Your task to perform on an android device: Search for razer kraken on target.com, select the first entry, and add it to the cart. Image 0: 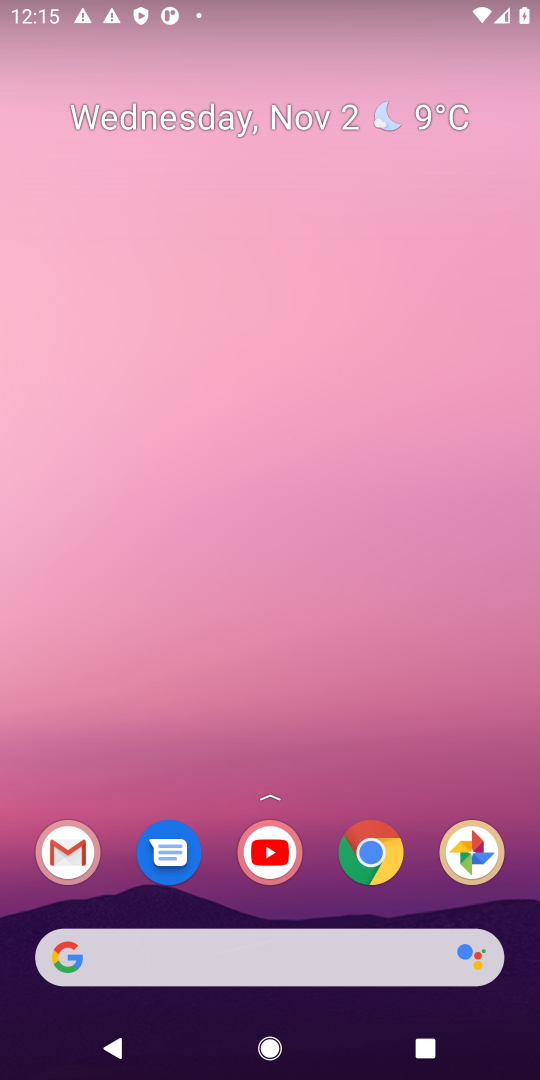
Step 0: drag from (269, 670) to (291, 21)
Your task to perform on an android device: Search for razer kraken on target.com, select the first entry, and add it to the cart. Image 1: 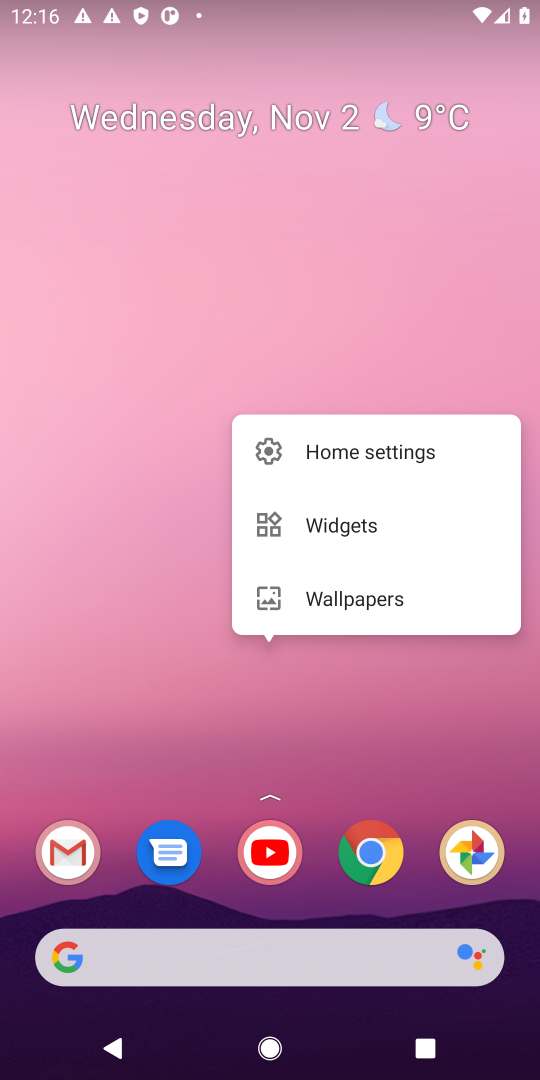
Step 1: click (199, 346)
Your task to perform on an android device: Search for razer kraken on target.com, select the first entry, and add it to the cart. Image 2: 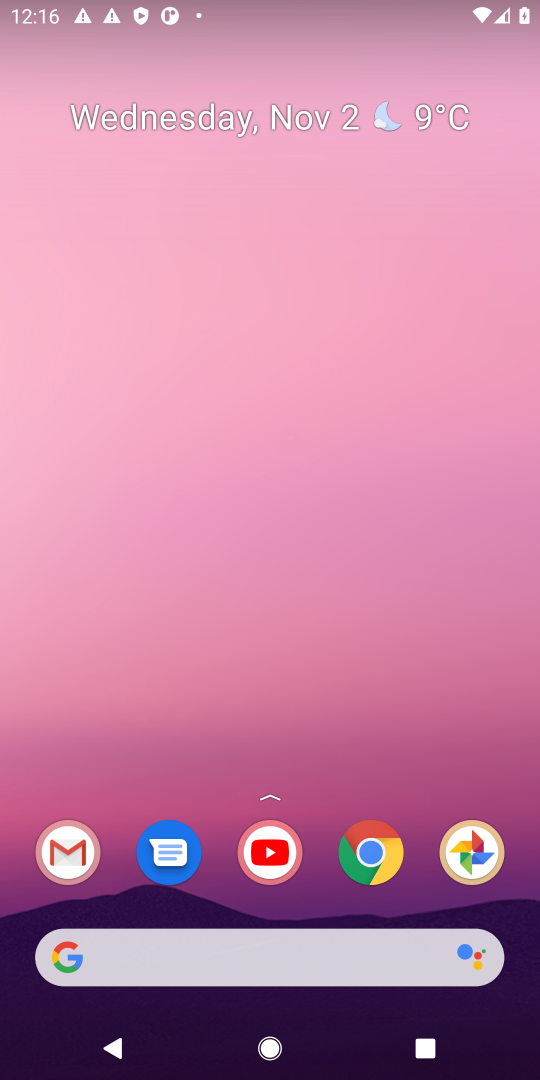
Step 2: click (199, 346)
Your task to perform on an android device: Search for razer kraken on target.com, select the first entry, and add it to the cart. Image 3: 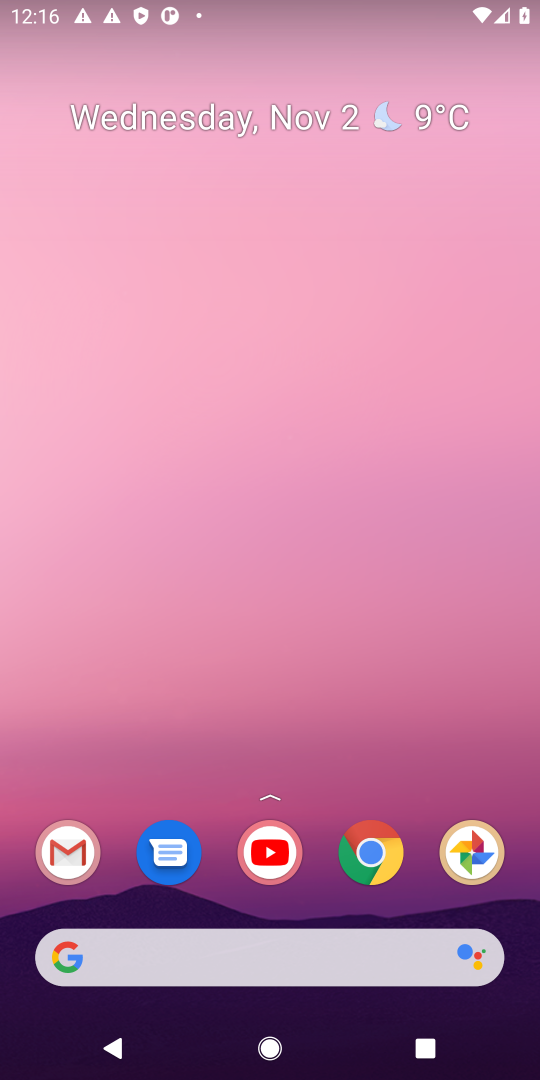
Step 3: drag from (314, 827) to (287, 72)
Your task to perform on an android device: Search for razer kraken on target.com, select the first entry, and add it to the cart. Image 4: 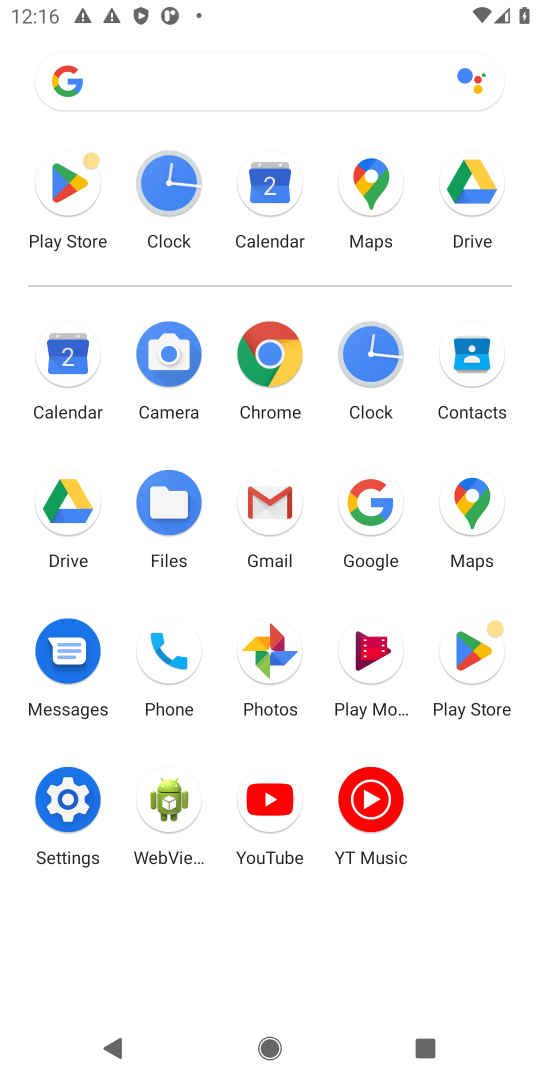
Step 4: click (383, 530)
Your task to perform on an android device: Search for razer kraken on target.com, select the first entry, and add it to the cart. Image 5: 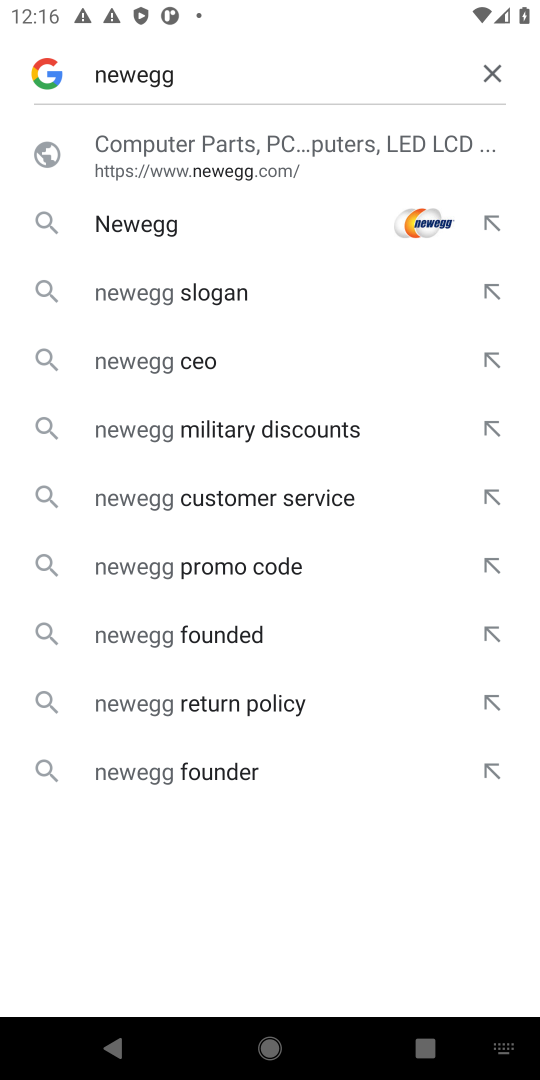
Step 5: click (492, 77)
Your task to perform on an android device: Search for razer kraken on target.com, select the first entry, and add it to the cart. Image 6: 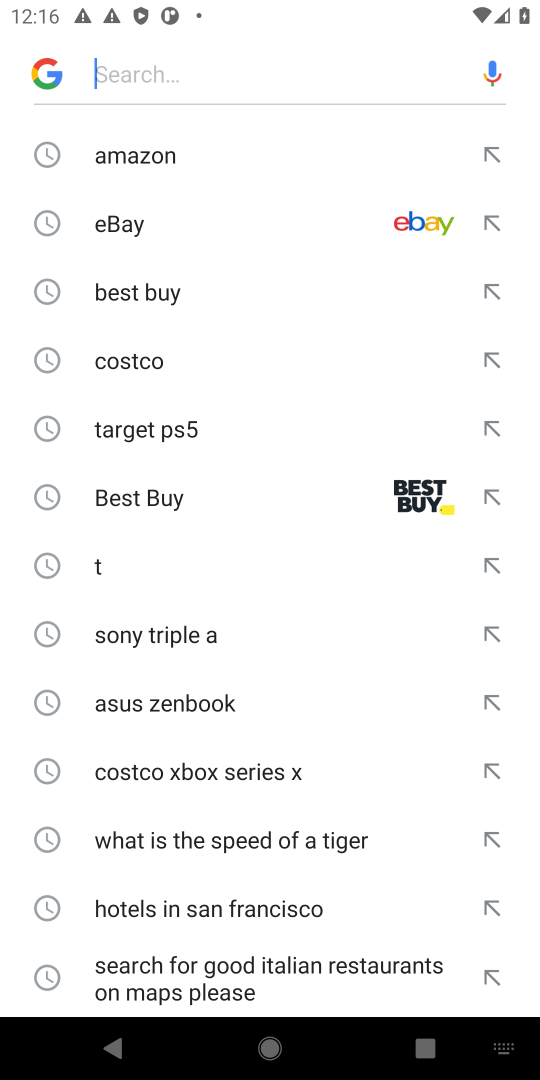
Step 6: type "target.com"
Your task to perform on an android device: Search for razer kraken on target.com, select the first entry, and add it to the cart. Image 7: 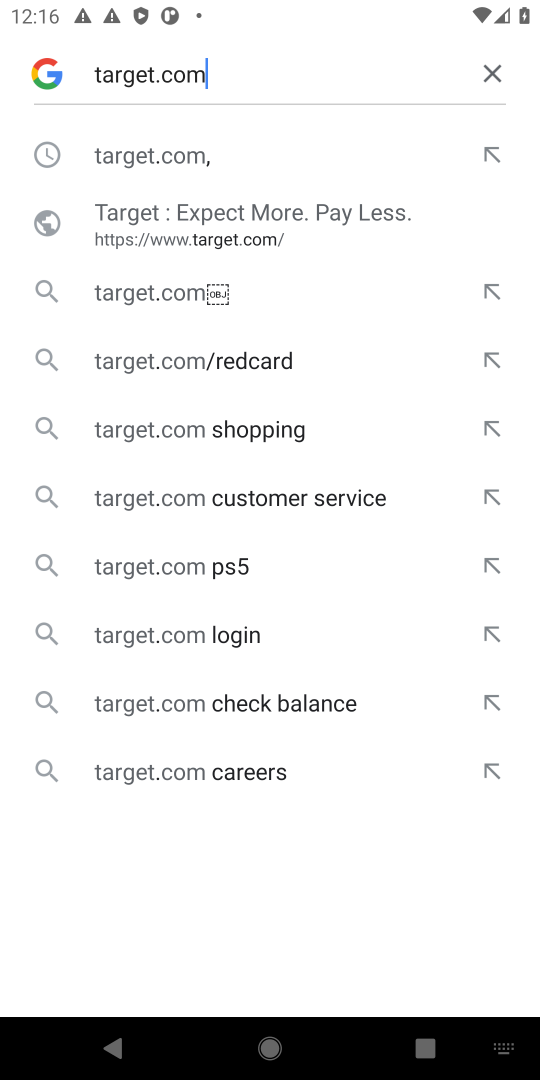
Step 7: click (225, 294)
Your task to perform on an android device: Search for razer kraken on target.com, select the first entry, and add it to the cart. Image 8: 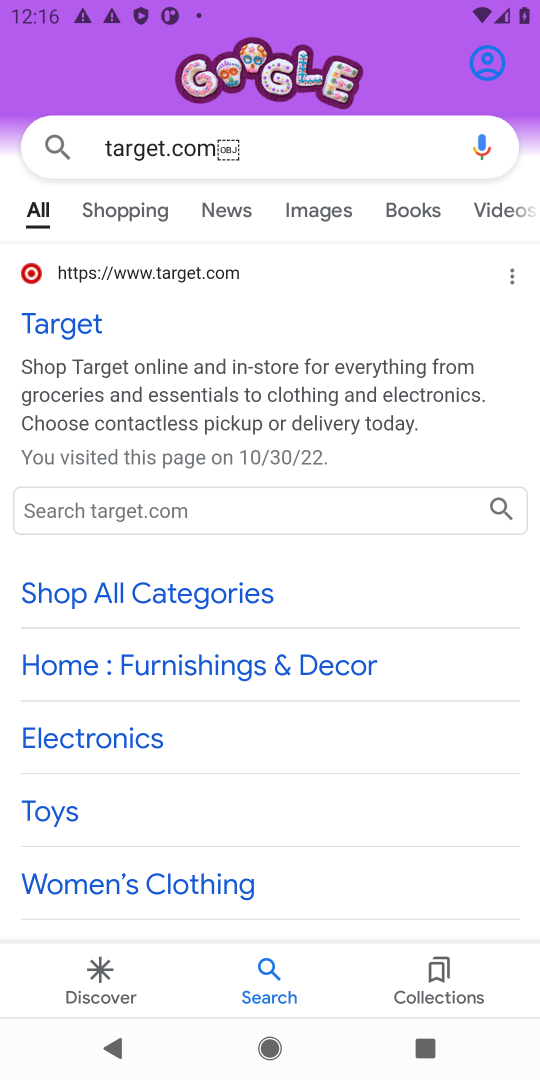
Step 8: click (80, 322)
Your task to perform on an android device: Search for razer kraken on target.com, select the first entry, and add it to the cart. Image 9: 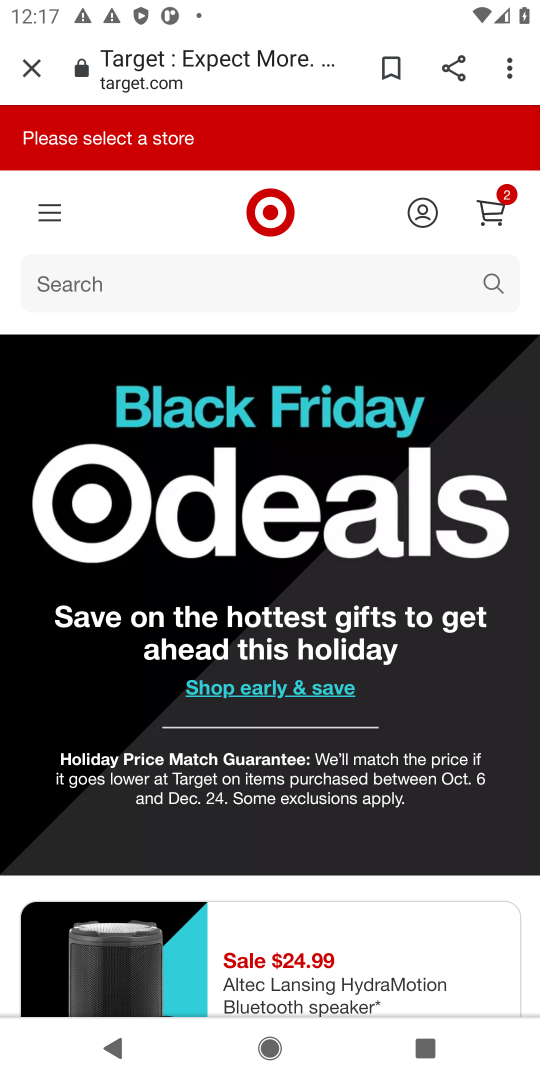
Step 9: click (305, 271)
Your task to perform on an android device: Search for razer kraken on target.com, select the first entry, and add it to the cart. Image 10: 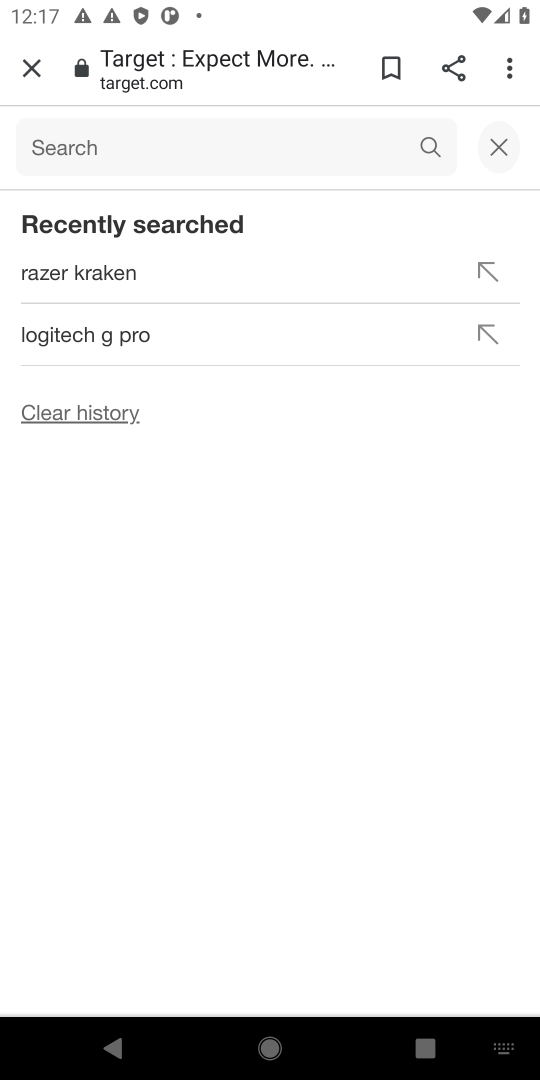
Step 10: type "razer kraken"
Your task to perform on an android device: Search for razer kraken on target.com, select the first entry, and add it to the cart. Image 11: 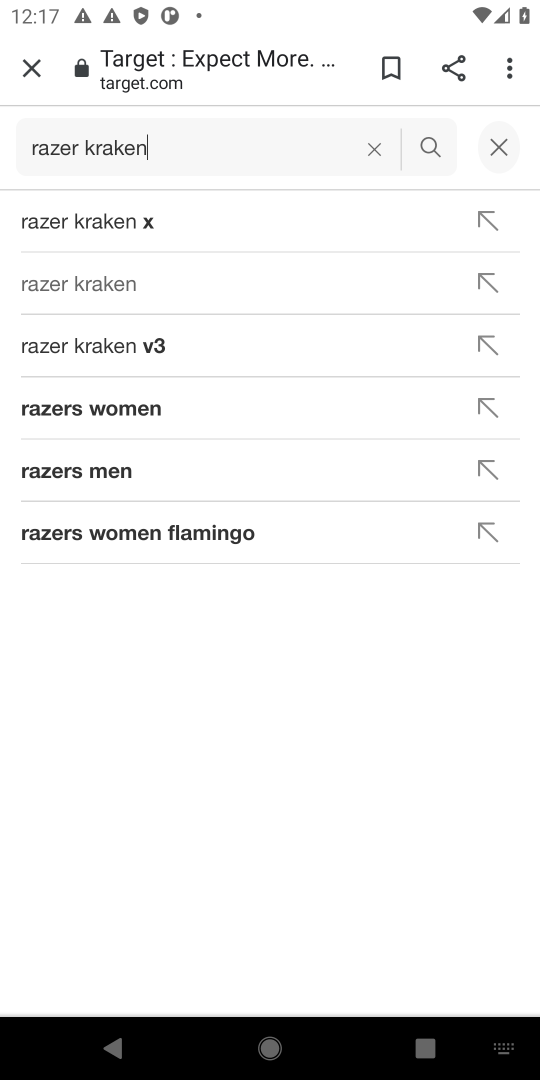
Step 11: click (127, 282)
Your task to perform on an android device: Search for razer kraken on target.com, select the first entry, and add it to the cart. Image 12: 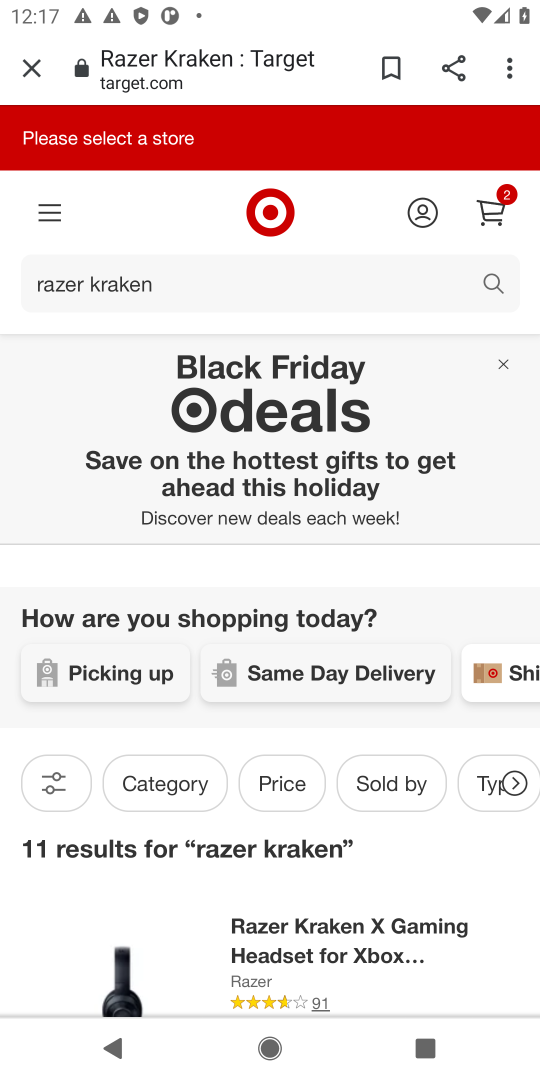
Step 12: click (298, 970)
Your task to perform on an android device: Search for razer kraken on target.com, select the first entry, and add it to the cart. Image 13: 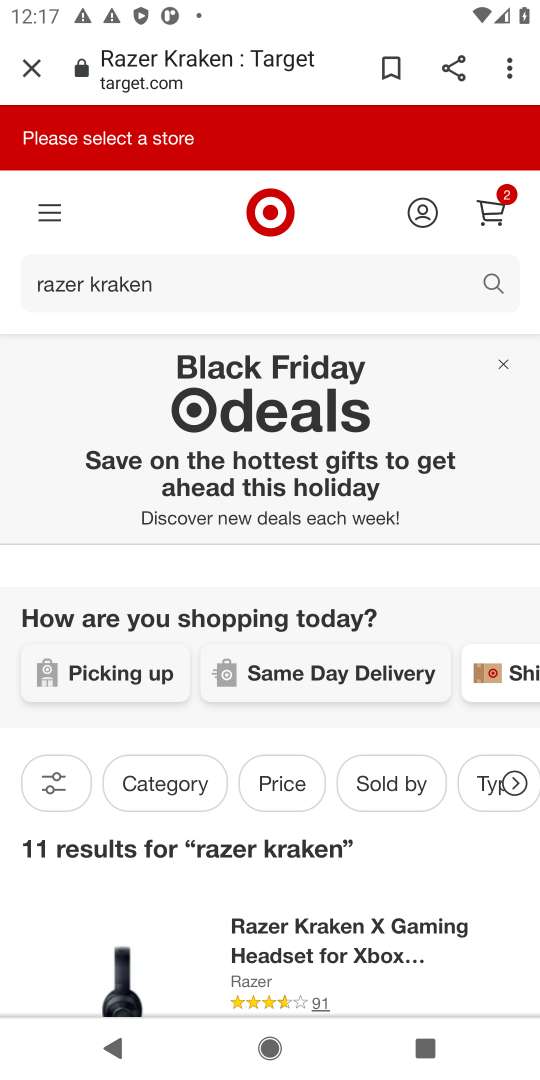
Step 13: click (298, 932)
Your task to perform on an android device: Search for razer kraken on target.com, select the first entry, and add it to the cart. Image 14: 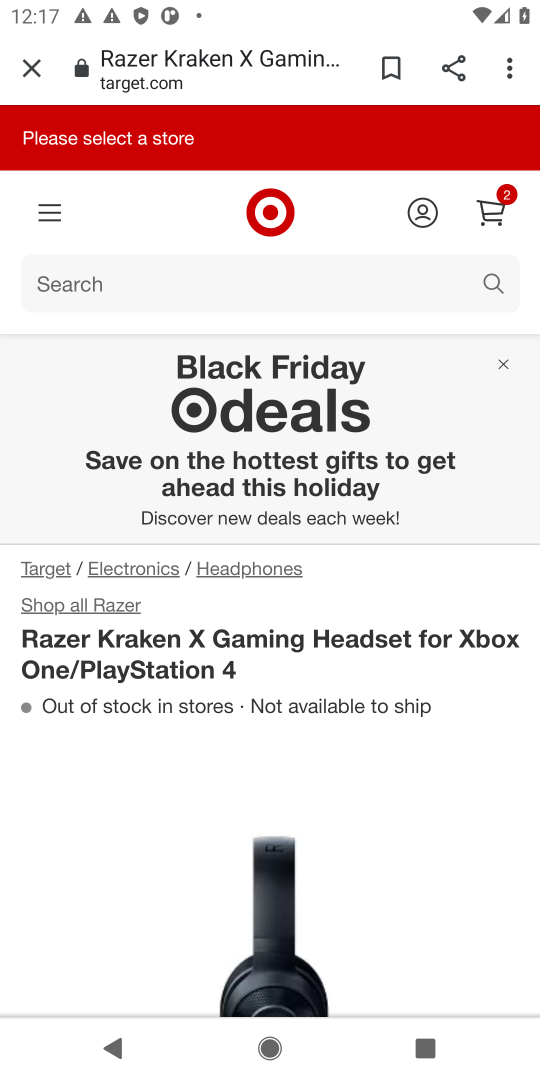
Step 14: drag from (298, 932) to (381, 417)
Your task to perform on an android device: Search for razer kraken on target.com, select the first entry, and add it to the cart. Image 15: 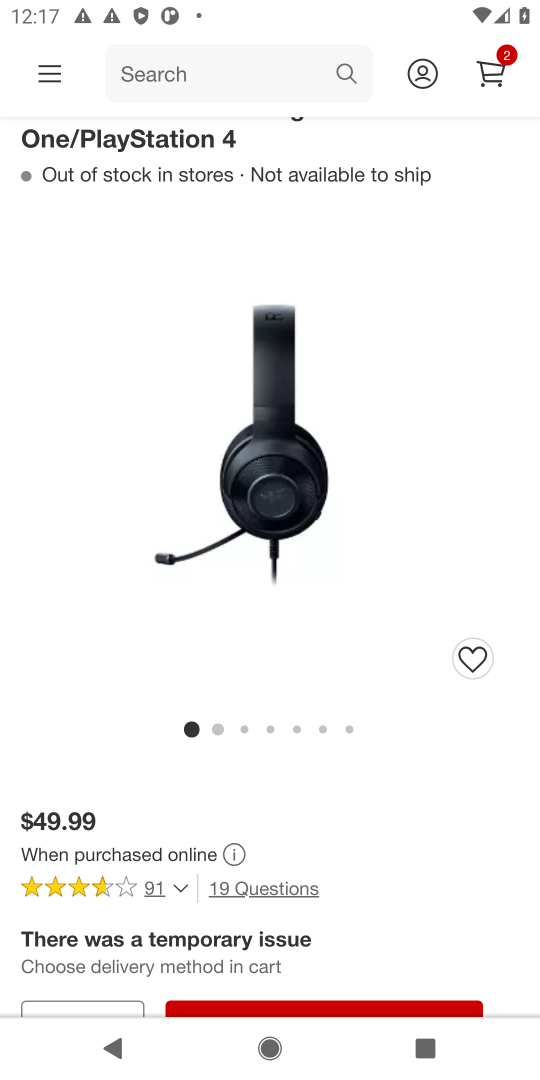
Step 15: click (393, 530)
Your task to perform on an android device: Search for razer kraken on target.com, select the first entry, and add it to the cart. Image 16: 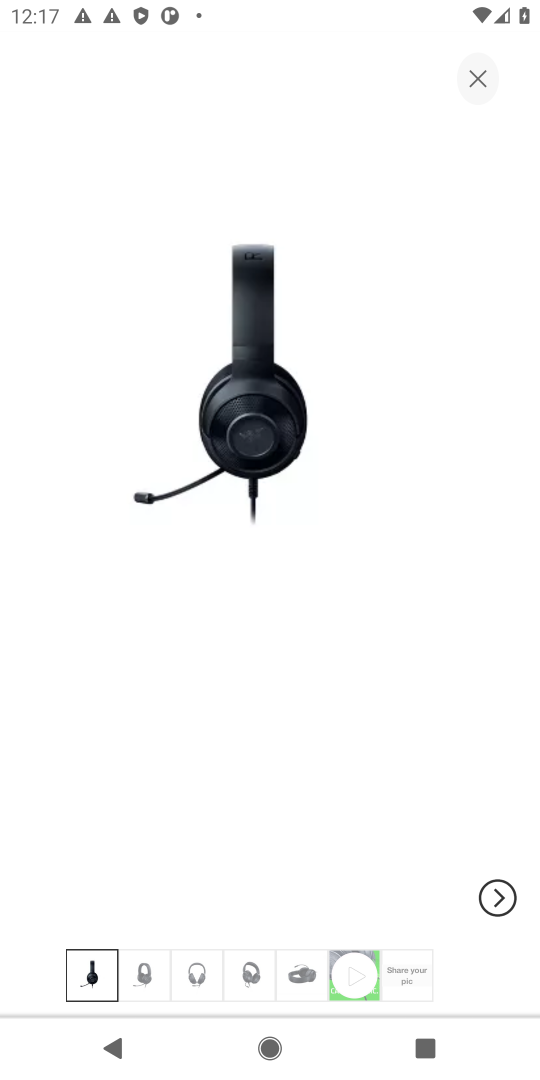
Step 16: click (480, 79)
Your task to perform on an android device: Search for razer kraken on target.com, select the first entry, and add it to the cart. Image 17: 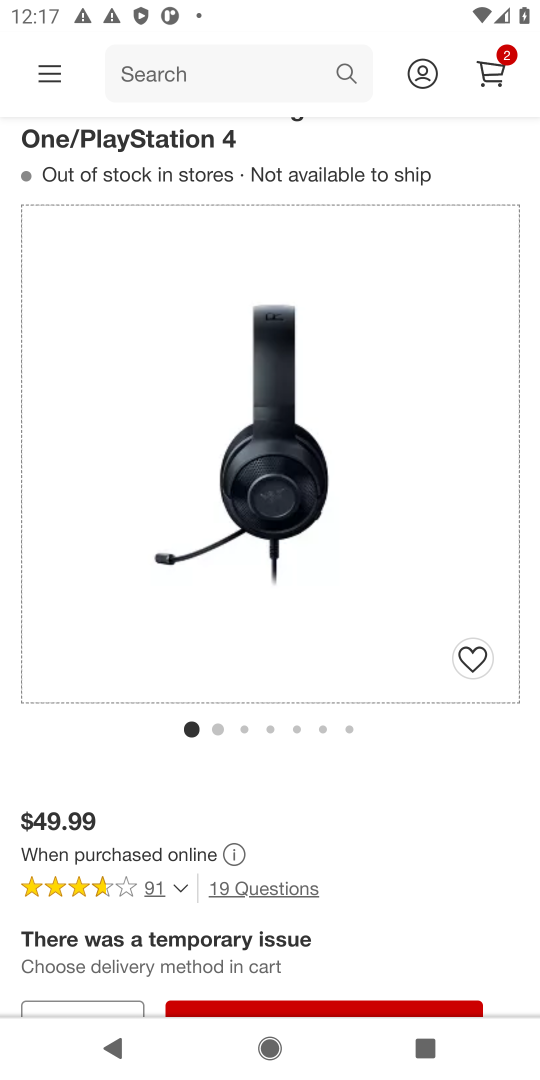
Step 17: drag from (441, 824) to (442, 379)
Your task to perform on an android device: Search for razer kraken on target.com, select the first entry, and add it to the cart. Image 18: 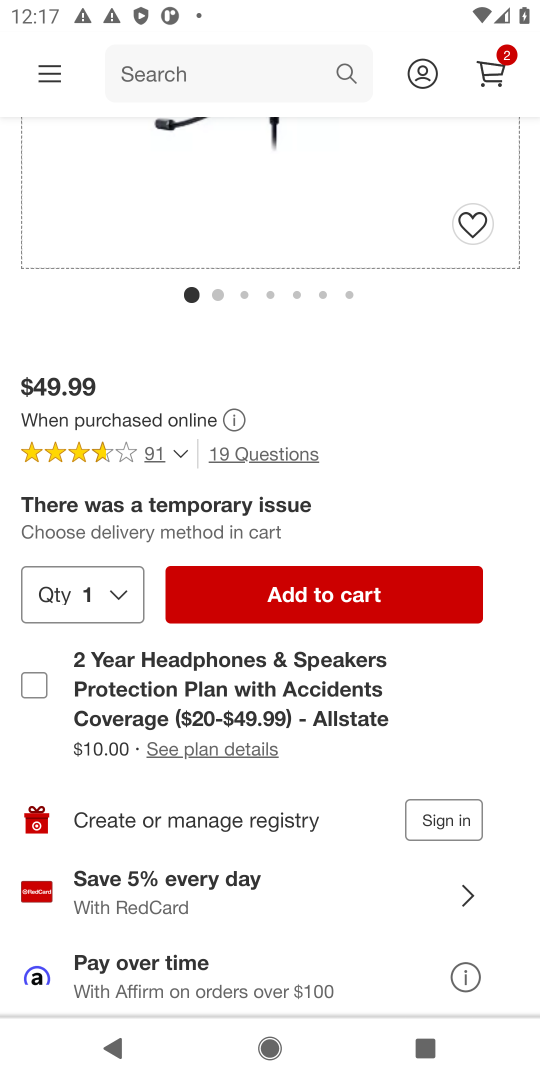
Step 18: click (395, 582)
Your task to perform on an android device: Search for razer kraken on target.com, select the first entry, and add it to the cart. Image 19: 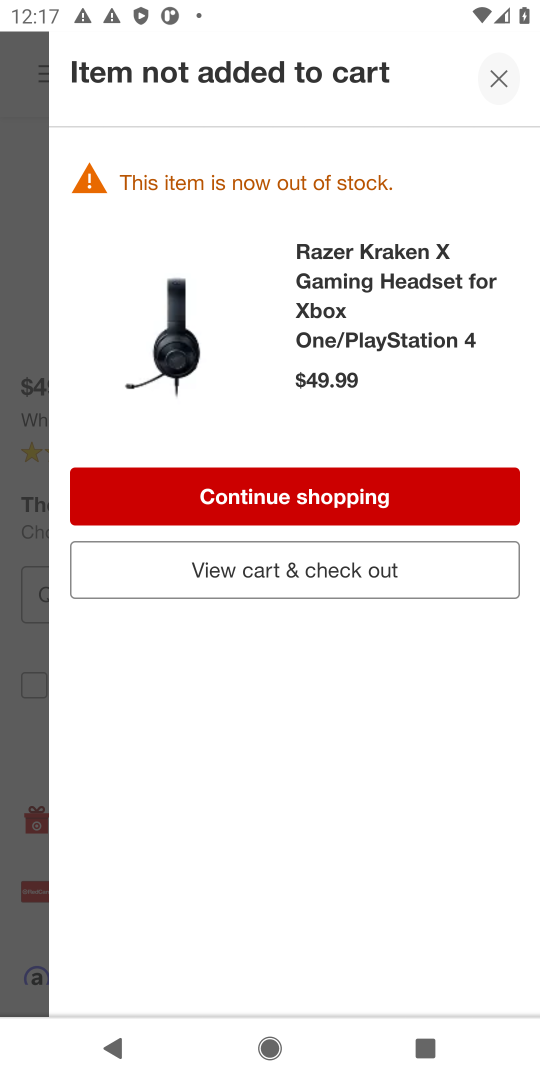
Step 19: task complete